Your task to perform on an android device: turn off improve location accuracy Image 0: 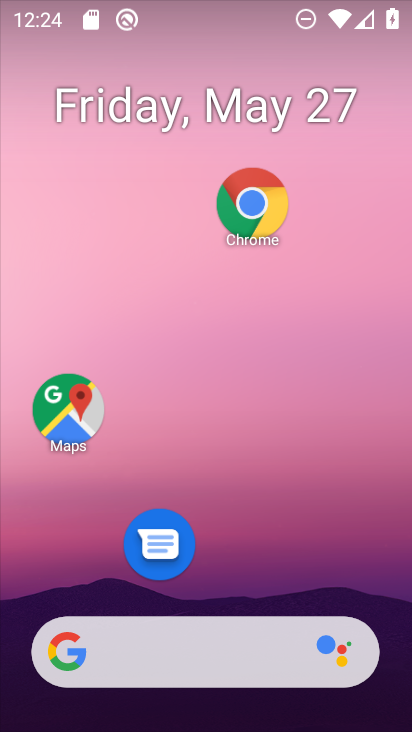
Step 0: drag from (194, 581) to (221, 398)
Your task to perform on an android device: turn off improve location accuracy Image 1: 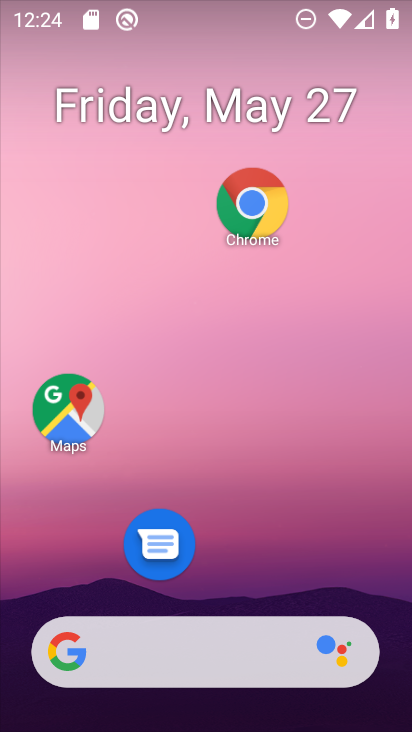
Step 1: drag from (271, 553) to (174, 17)
Your task to perform on an android device: turn off improve location accuracy Image 2: 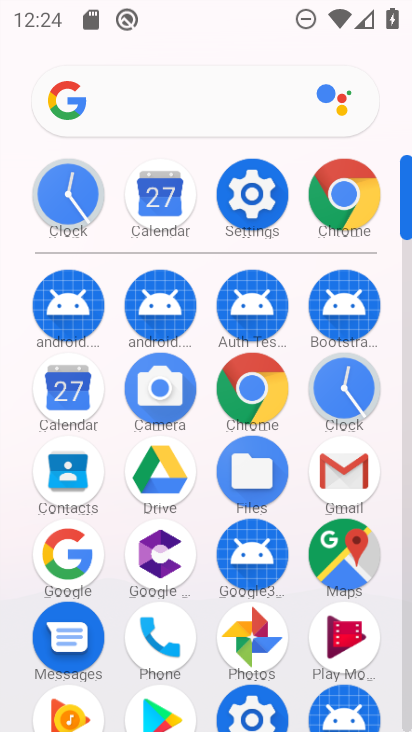
Step 2: click (259, 198)
Your task to perform on an android device: turn off improve location accuracy Image 3: 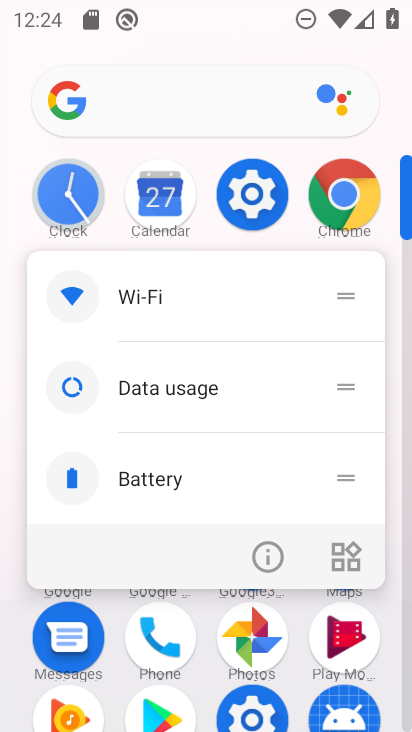
Step 3: click (269, 558)
Your task to perform on an android device: turn off improve location accuracy Image 4: 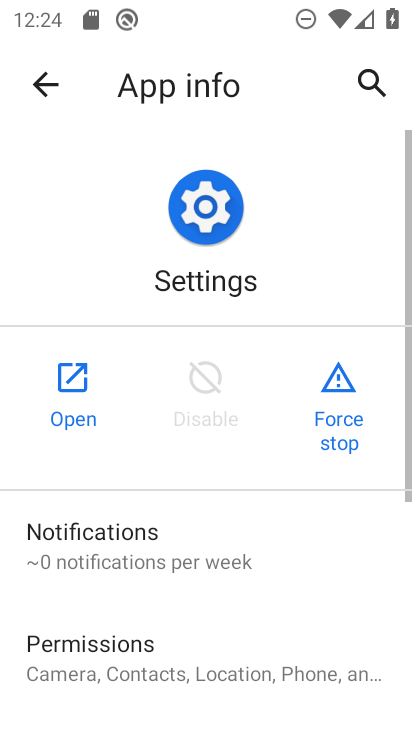
Step 4: click (72, 405)
Your task to perform on an android device: turn off improve location accuracy Image 5: 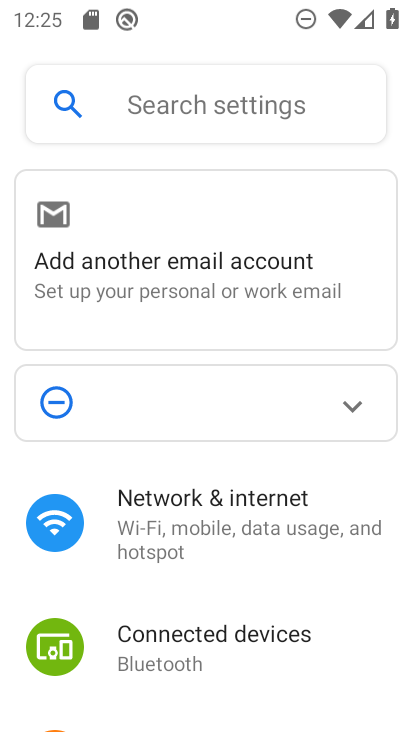
Step 5: drag from (165, 573) to (270, 215)
Your task to perform on an android device: turn off improve location accuracy Image 6: 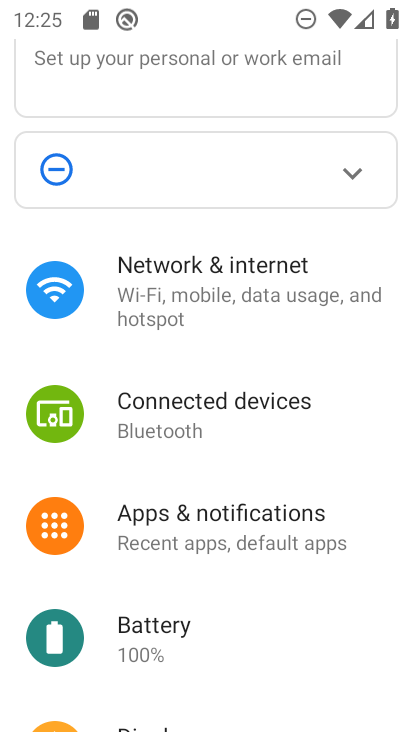
Step 6: drag from (211, 670) to (251, 199)
Your task to perform on an android device: turn off improve location accuracy Image 7: 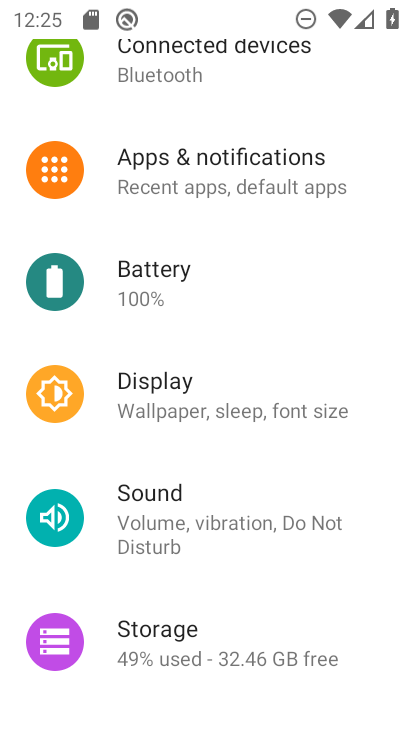
Step 7: drag from (226, 659) to (257, 304)
Your task to perform on an android device: turn off improve location accuracy Image 8: 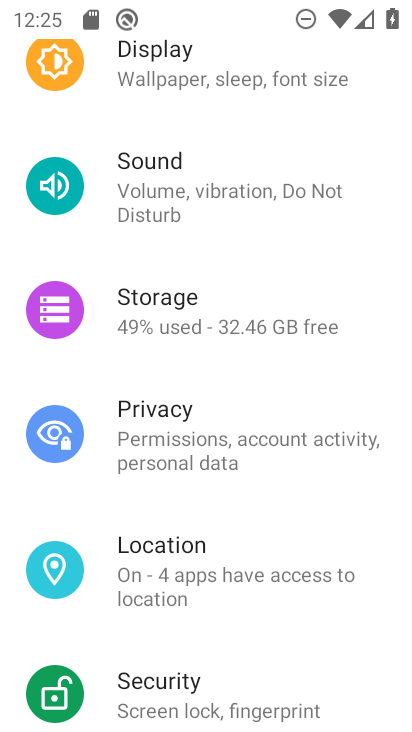
Step 8: click (190, 565)
Your task to perform on an android device: turn off improve location accuracy Image 9: 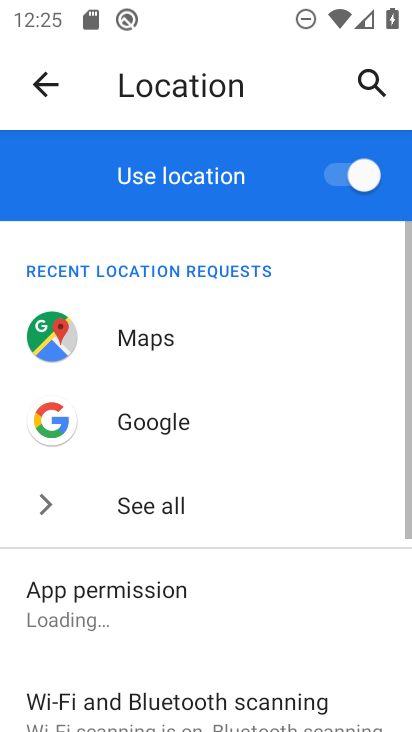
Step 9: drag from (152, 681) to (203, 237)
Your task to perform on an android device: turn off improve location accuracy Image 10: 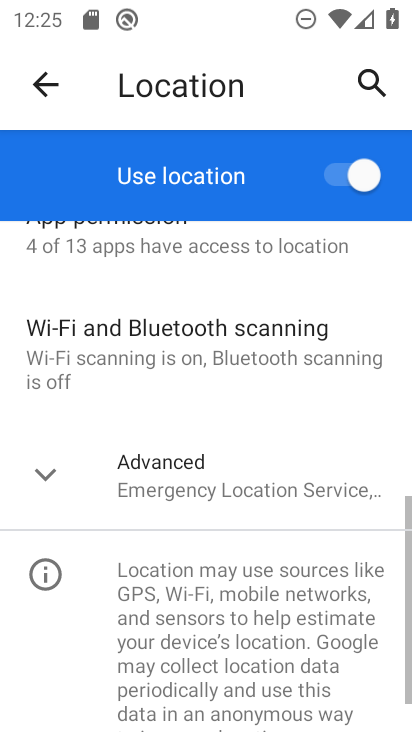
Step 10: click (130, 497)
Your task to perform on an android device: turn off improve location accuracy Image 11: 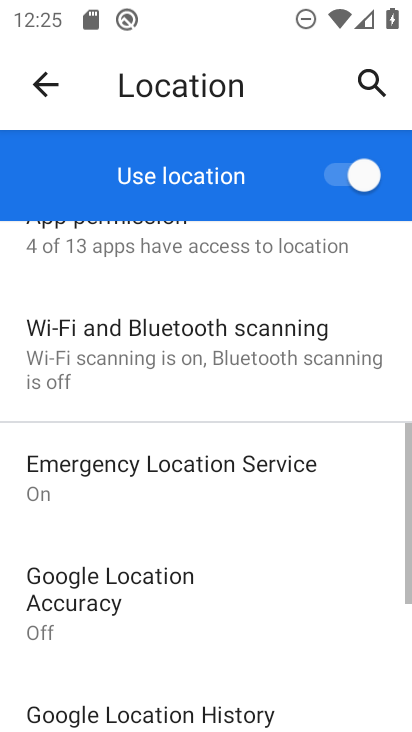
Step 11: drag from (187, 617) to (258, 195)
Your task to perform on an android device: turn off improve location accuracy Image 12: 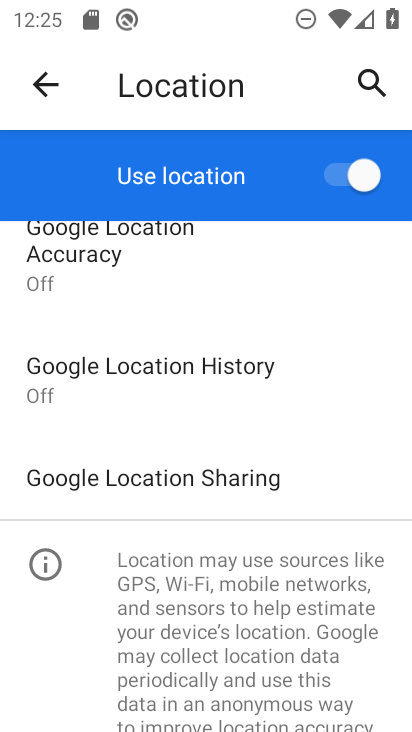
Step 12: click (107, 265)
Your task to perform on an android device: turn off improve location accuracy Image 13: 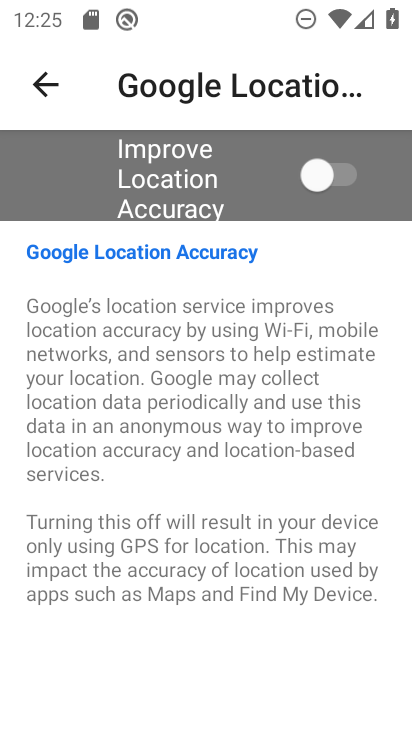
Step 13: task complete